Your task to perform on an android device: uninstall "Instagram" Image 0: 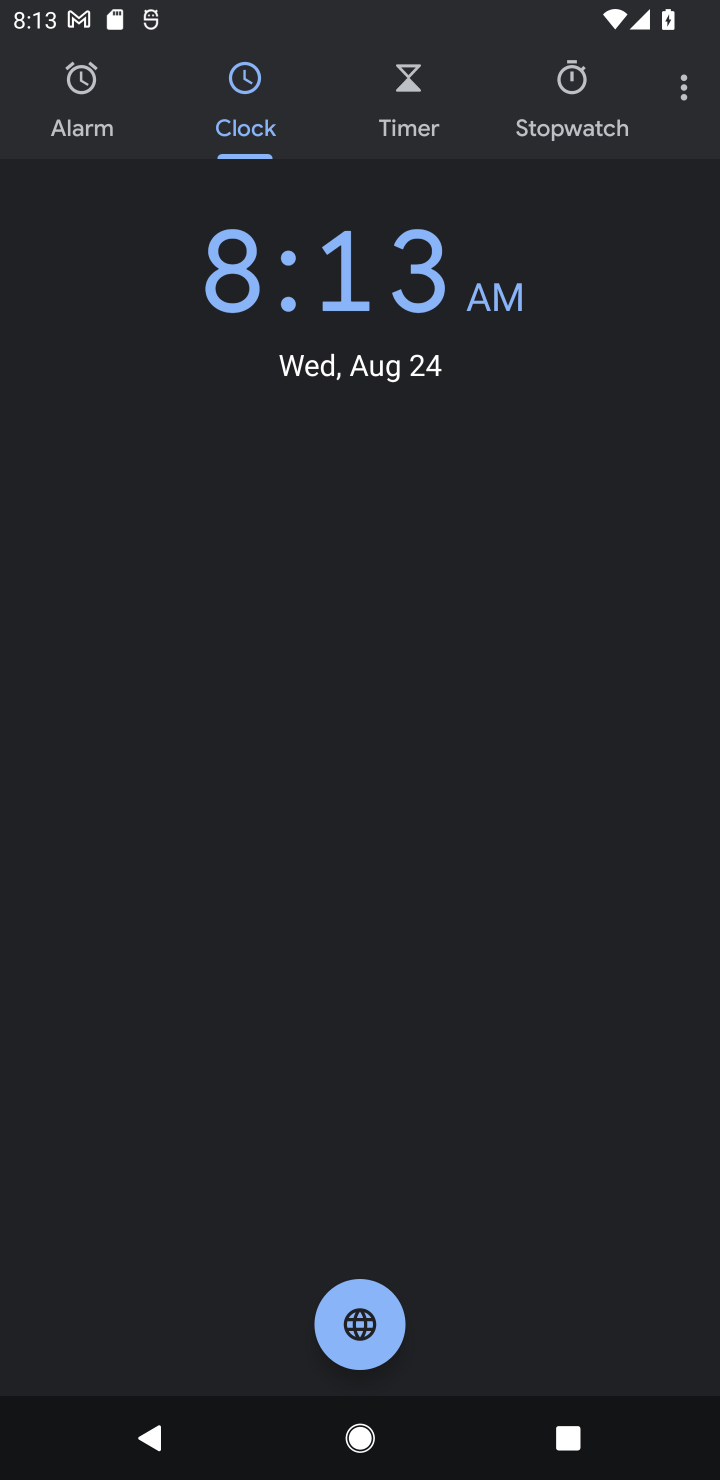
Step 0: press home button
Your task to perform on an android device: uninstall "Instagram" Image 1: 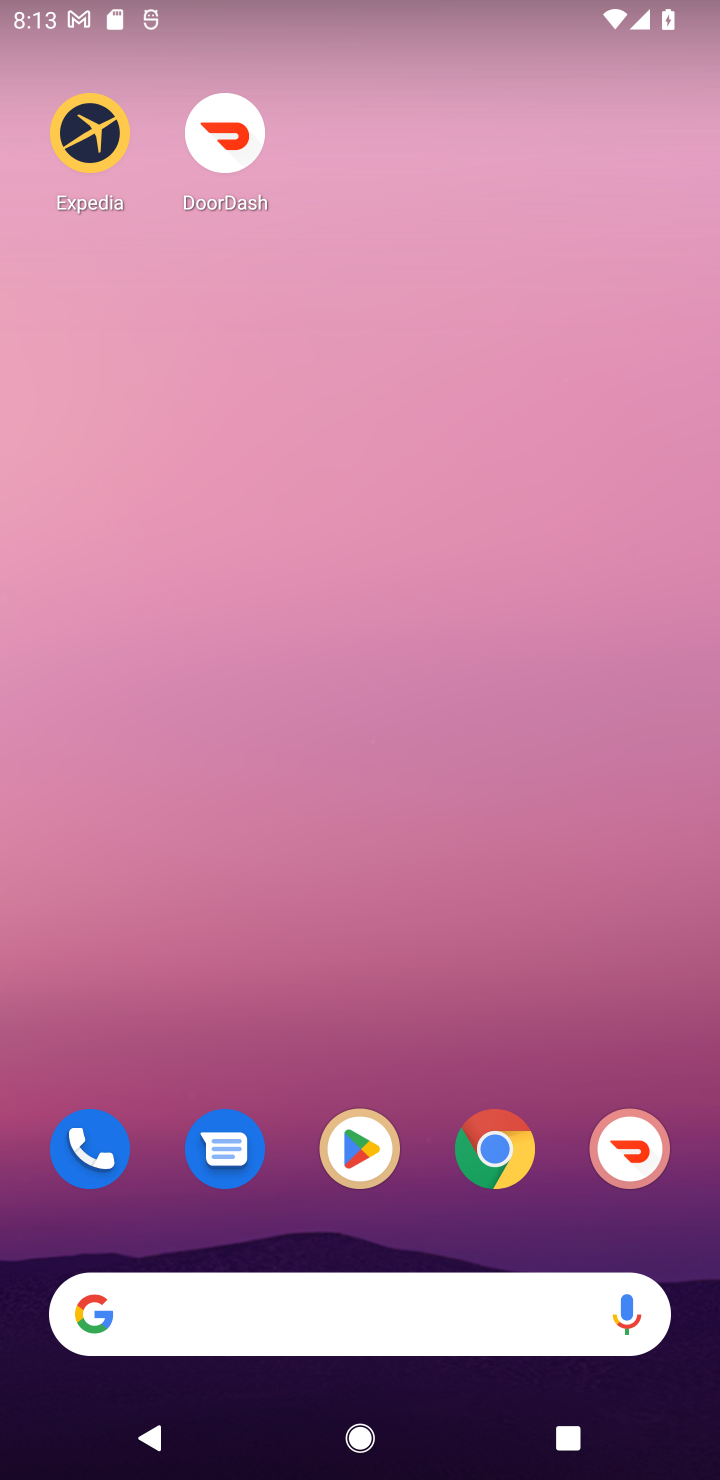
Step 1: click (327, 1146)
Your task to perform on an android device: uninstall "Instagram" Image 2: 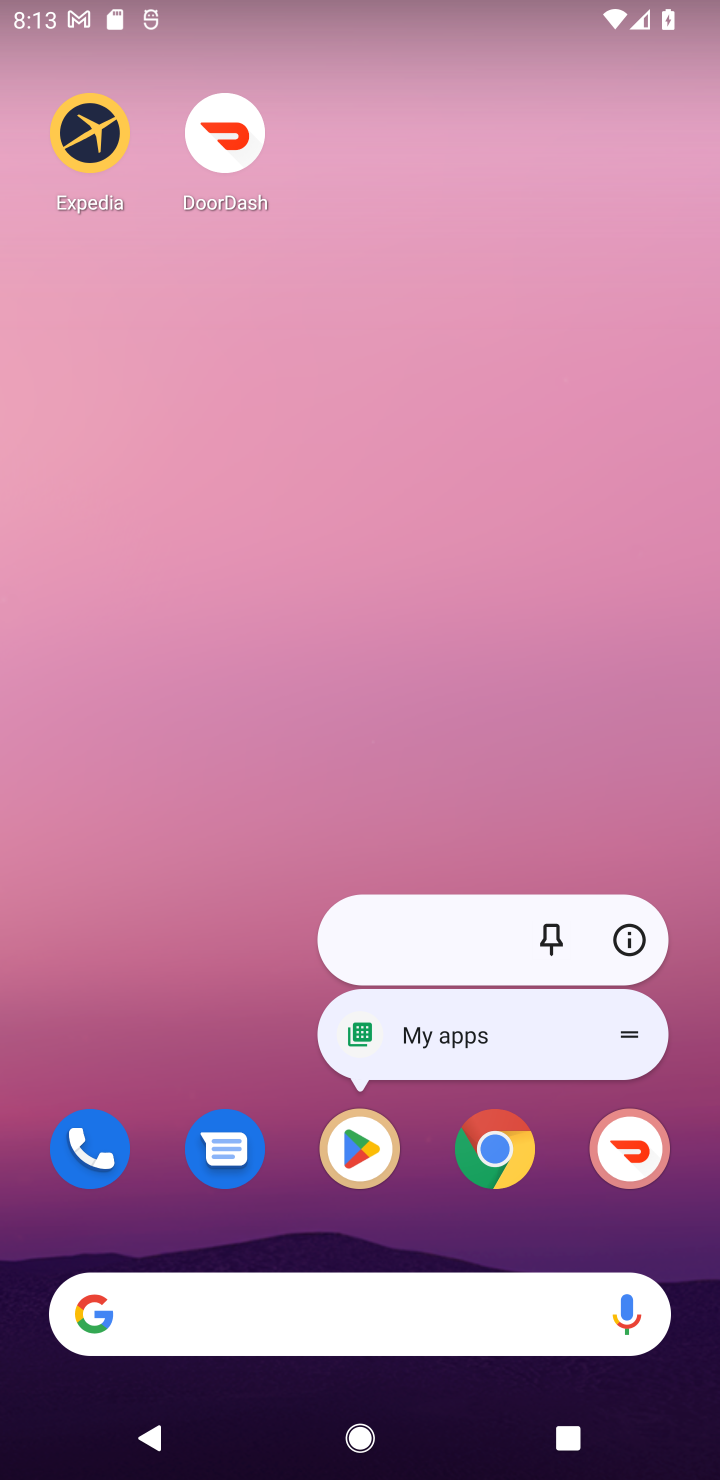
Step 2: click (350, 1121)
Your task to perform on an android device: uninstall "Instagram" Image 3: 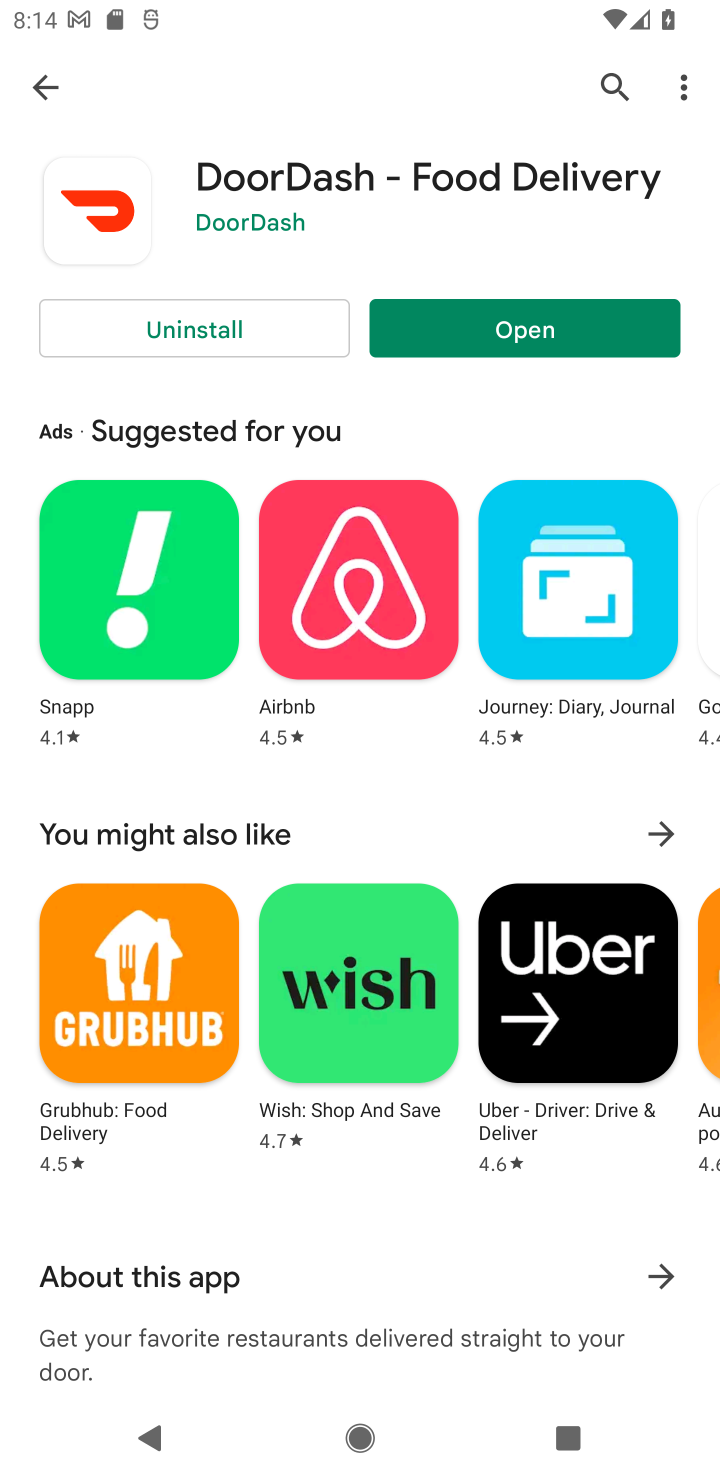
Step 3: click (610, 82)
Your task to perform on an android device: uninstall "Instagram" Image 4: 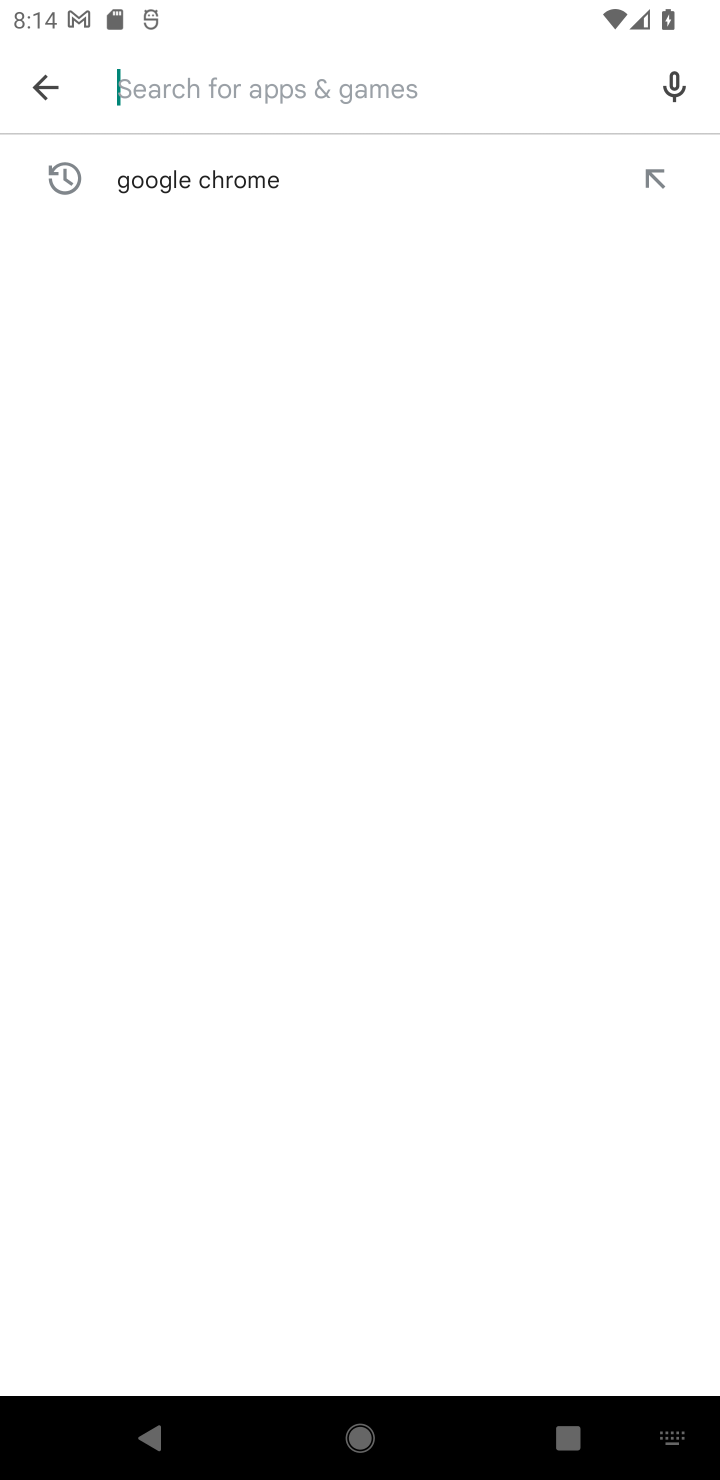
Step 4: type "Instagram"
Your task to perform on an android device: uninstall "Instagram" Image 5: 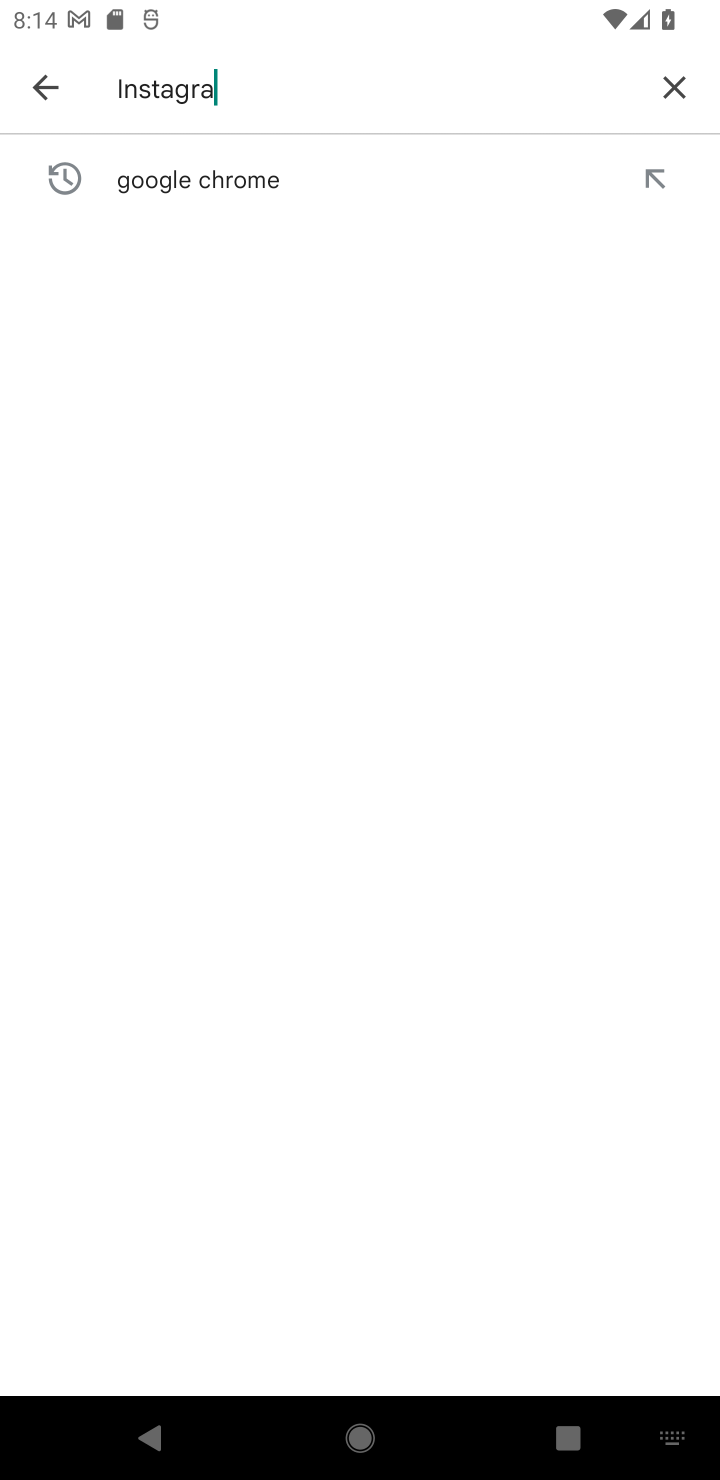
Step 5: type ""
Your task to perform on an android device: uninstall "Instagram" Image 6: 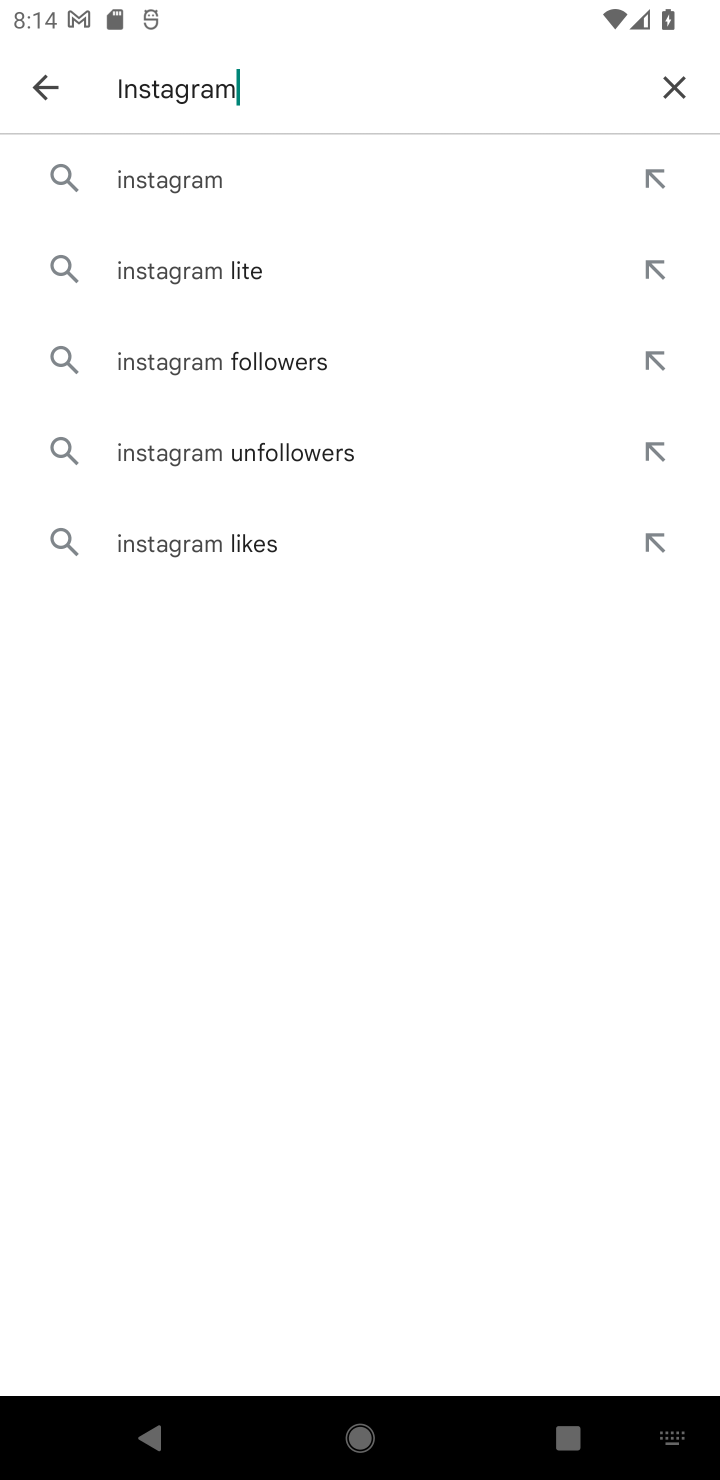
Step 6: click (178, 168)
Your task to perform on an android device: uninstall "Instagram" Image 7: 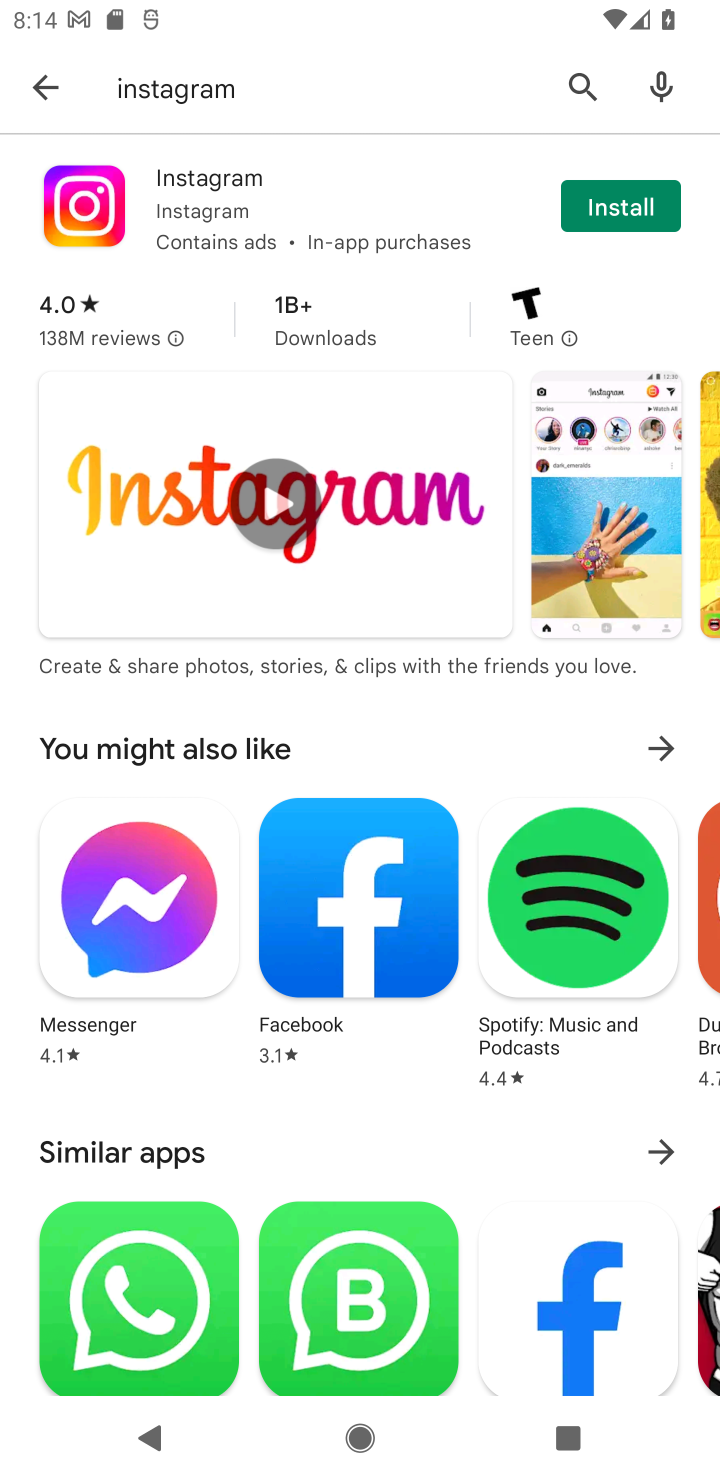
Step 7: task complete